Your task to perform on an android device: Do I have any events tomorrow? Image 0: 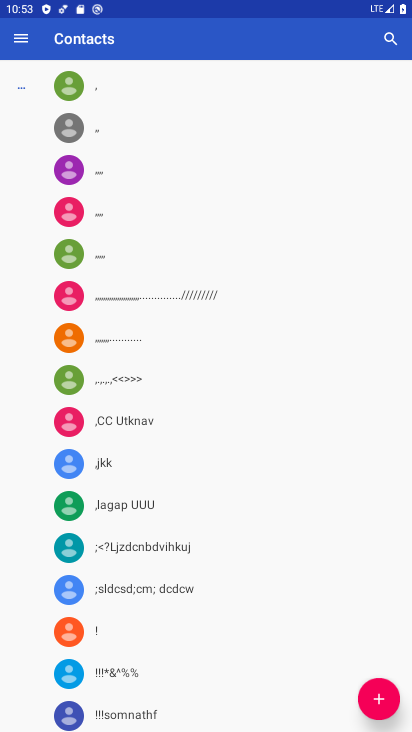
Step 0: press home button
Your task to perform on an android device: Do I have any events tomorrow? Image 1: 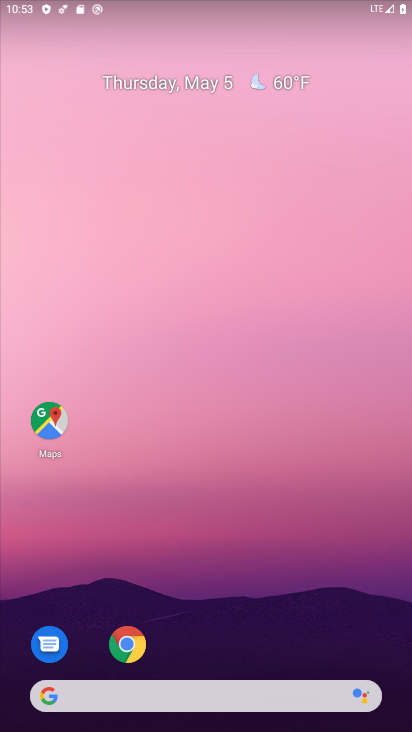
Step 1: drag from (323, 558) to (322, 124)
Your task to perform on an android device: Do I have any events tomorrow? Image 2: 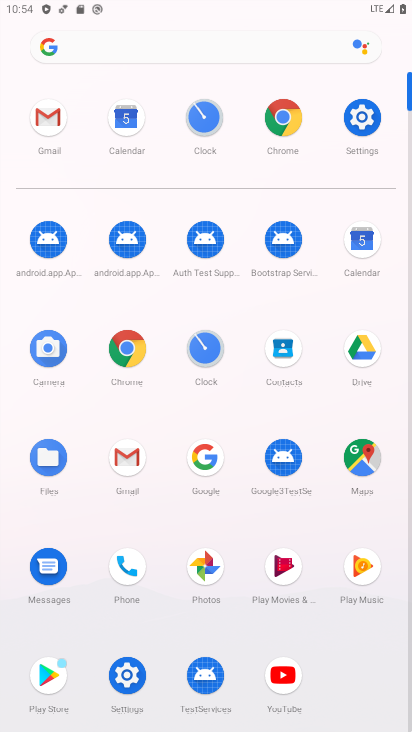
Step 2: click (129, 124)
Your task to perform on an android device: Do I have any events tomorrow? Image 3: 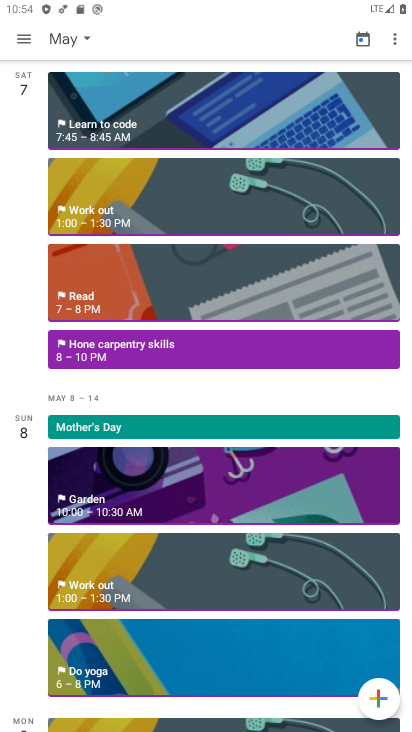
Step 3: click (76, 33)
Your task to perform on an android device: Do I have any events tomorrow? Image 4: 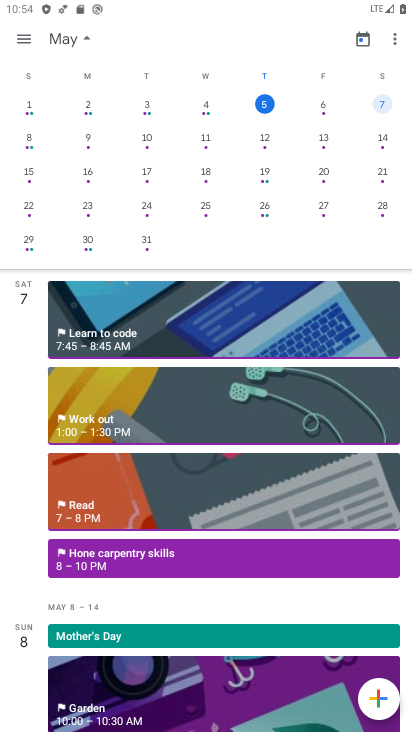
Step 4: click (385, 103)
Your task to perform on an android device: Do I have any events tomorrow? Image 5: 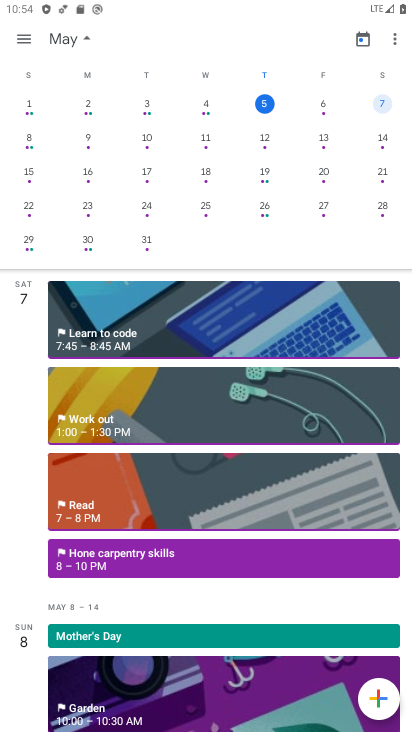
Step 5: task complete